Your task to perform on an android device: uninstall "Lyft - Rideshare, Bikes, Scooters & Transit" Image 0: 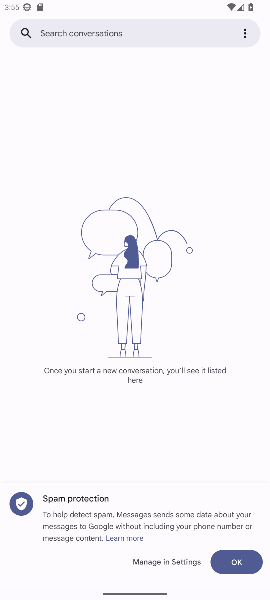
Step 0: press home button
Your task to perform on an android device: uninstall "Lyft - Rideshare, Bikes, Scooters & Transit" Image 1: 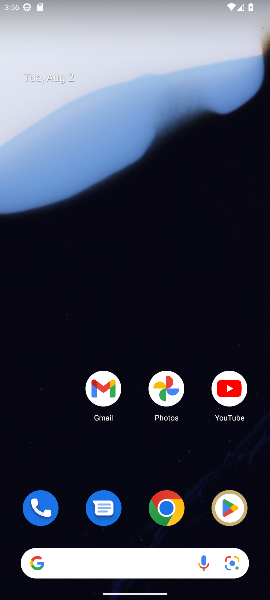
Step 1: click (235, 497)
Your task to perform on an android device: uninstall "Lyft - Rideshare, Bikes, Scooters & Transit" Image 2: 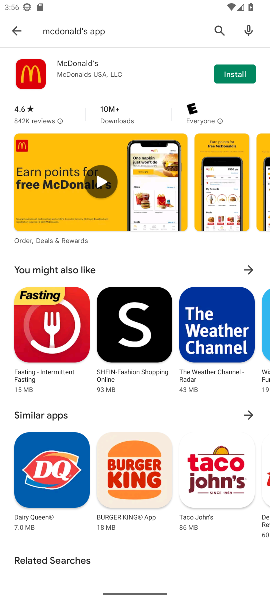
Step 2: click (212, 27)
Your task to perform on an android device: uninstall "Lyft - Rideshare, Bikes, Scooters & Transit" Image 3: 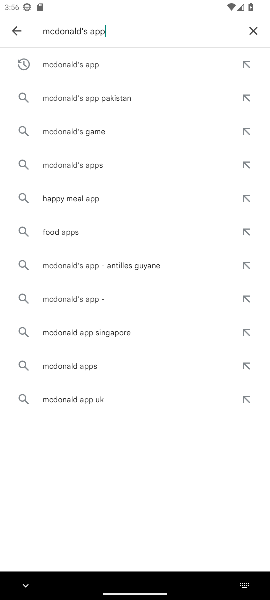
Step 3: click (252, 35)
Your task to perform on an android device: uninstall "Lyft - Rideshare, Bikes, Scooters & Transit" Image 4: 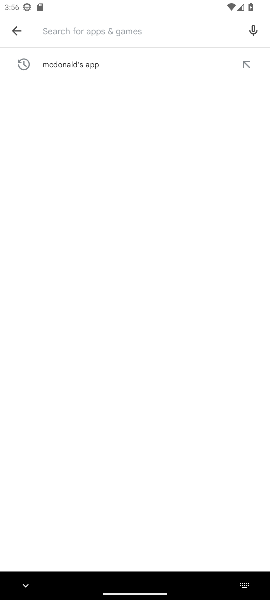
Step 4: type "lyft"
Your task to perform on an android device: uninstall "Lyft - Rideshare, Bikes, Scooters & Transit" Image 5: 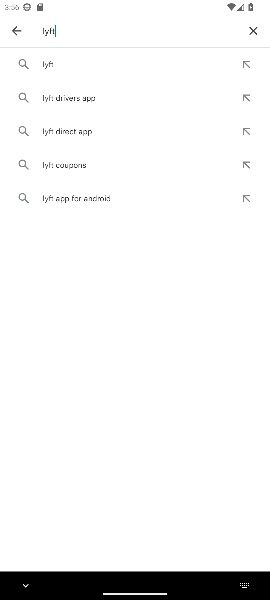
Step 5: click (58, 64)
Your task to perform on an android device: uninstall "Lyft - Rideshare, Bikes, Scooters & Transit" Image 6: 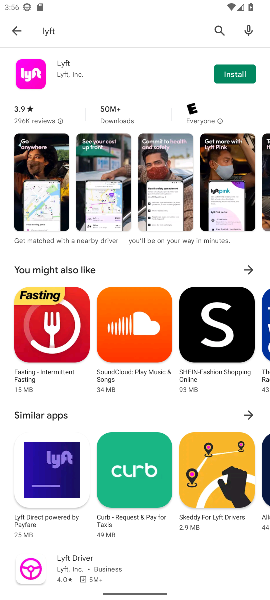
Step 6: task complete